Your task to perform on an android device: open wifi settings Image 0: 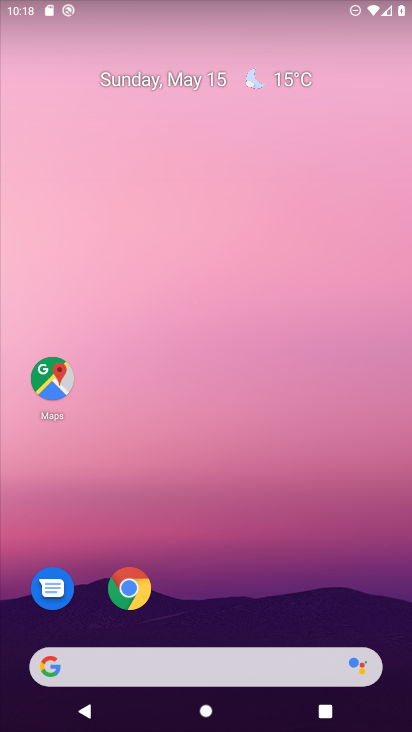
Step 0: drag from (246, 622) to (272, 186)
Your task to perform on an android device: open wifi settings Image 1: 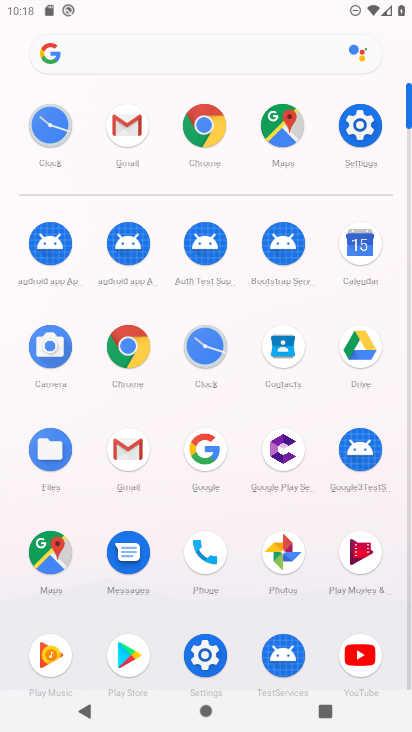
Step 1: click (206, 646)
Your task to perform on an android device: open wifi settings Image 2: 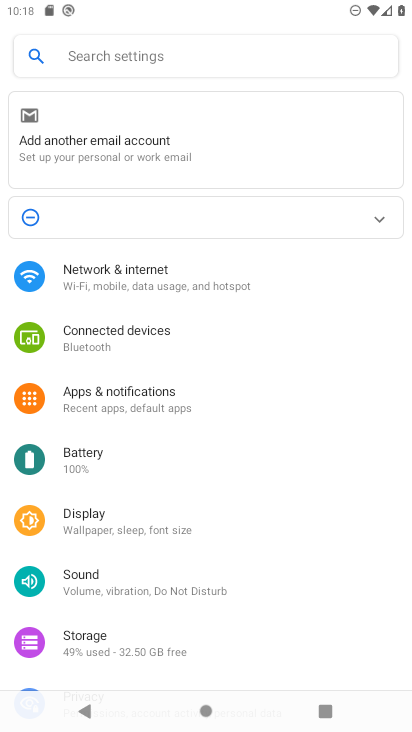
Step 2: click (175, 293)
Your task to perform on an android device: open wifi settings Image 3: 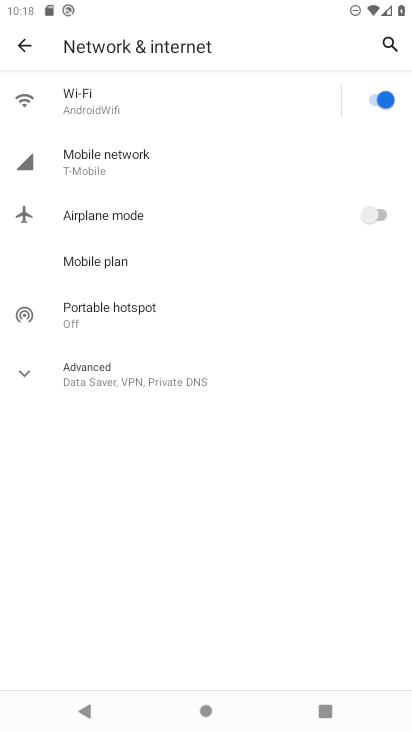
Step 3: task complete